Your task to perform on an android device: check data usage Image 0: 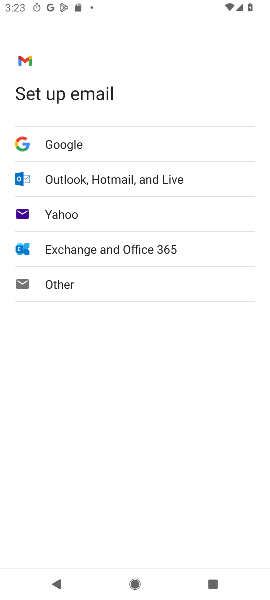
Step 0: press home button
Your task to perform on an android device: check data usage Image 1: 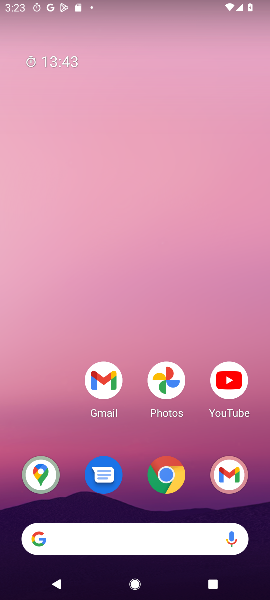
Step 1: drag from (58, 429) to (62, 196)
Your task to perform on an android device: check data usage Image 2: 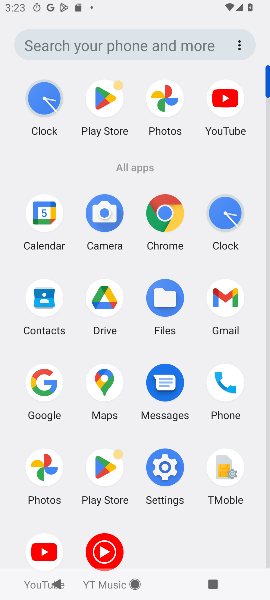
Step 2: click (169, 470)
Your task to perform on an android device: check data usage Image 3: 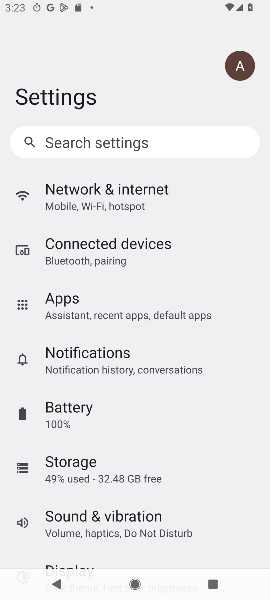
Step 3: drag from (221, 452) to (218, 323)
Your task to perform on an android device: check data usage Image 4: 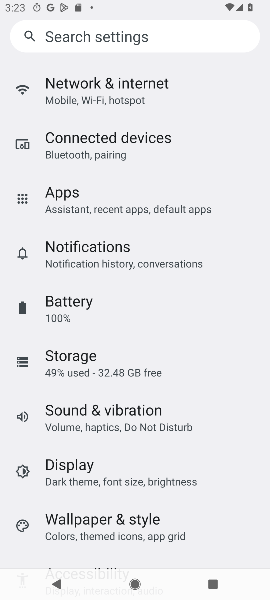
Step 4: drag from (225, 459) to (218, 325)
Your task to perform on an android device: check data usage Image 5: 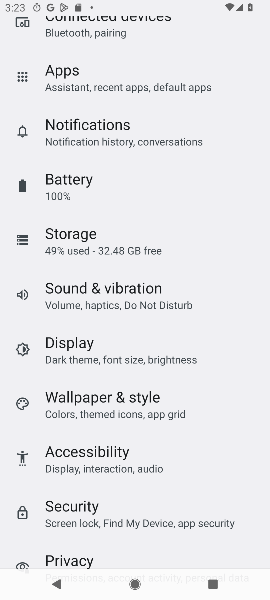
Step 5: drag from (205, 473) to (205, 371)
Your task to perform on an android device: check data usage Image 6: 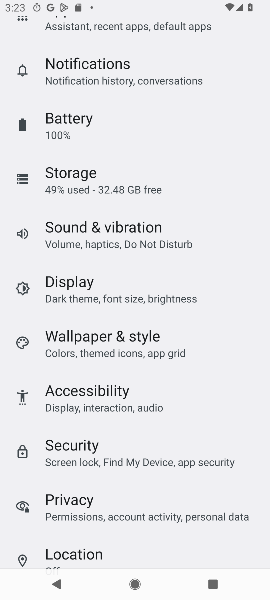
Step 6: drag from (217, 494) to (214, 392)
Your task to perform on an android device: check data usage Image 7: 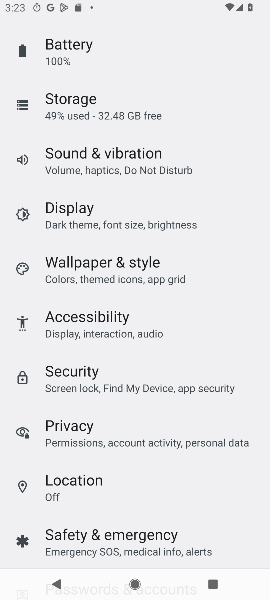
Step 7: drag from (218, 483) to (217, 389)
Your task to perform on an android device: check data usage Image 8: 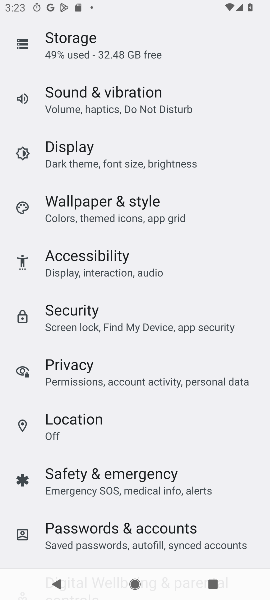
Step 8: drag from (223, 473) to (224, 347)
Your task to perform on an android device: check data usage Image 9: 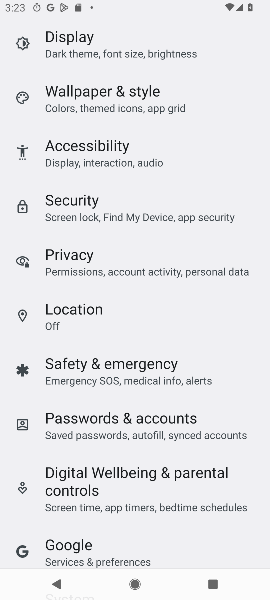
Step 9: drag from (204, 509) to (206, 395)
Your task to perform on an android device: check data usage Image 10: 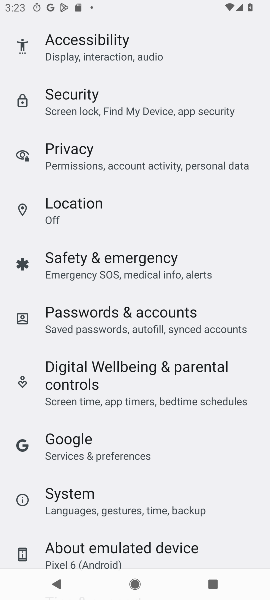
Step 10: drag from (232, 241) to (235, 412)
Your task to perform on an android device: check data usage Image 11: 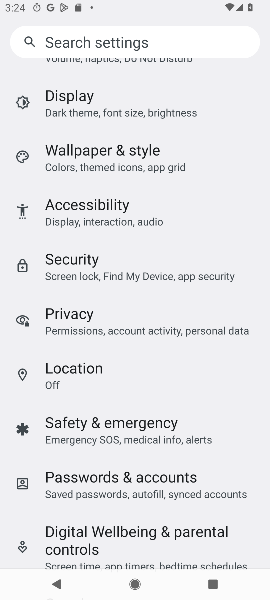
Step 11: drag from (195, 167) to (217, 367)
Your task to perform on an android device: check data usage Image 12: 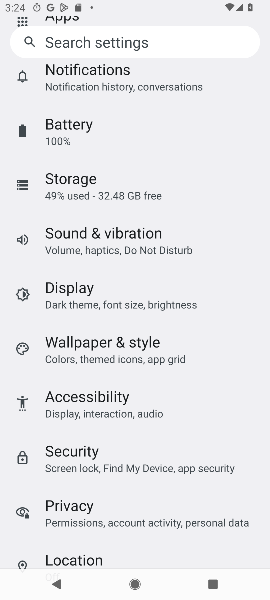
Step 12: drag from (219, 206) to (222, 417)
Your task to perform on an android device: check data usage Image 13: 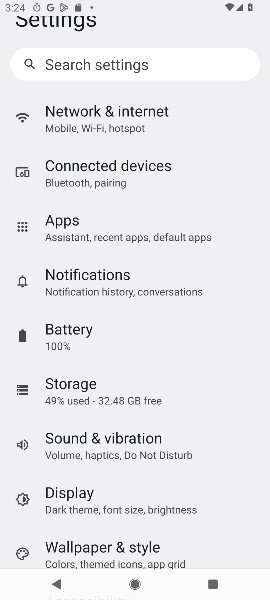
Step 13: click (163, 119)
Your task to perform on an android device: check data usage Image 14: 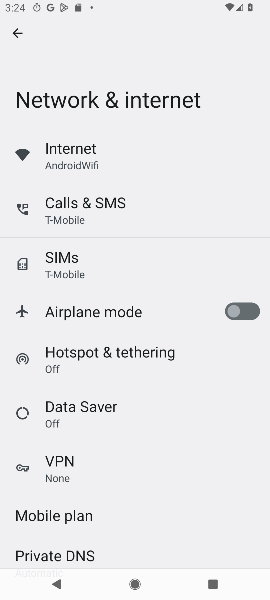
Step 14: drag from (172, 152) to (180, 284)
Your task to perform on an android device: check data usage Image 15: 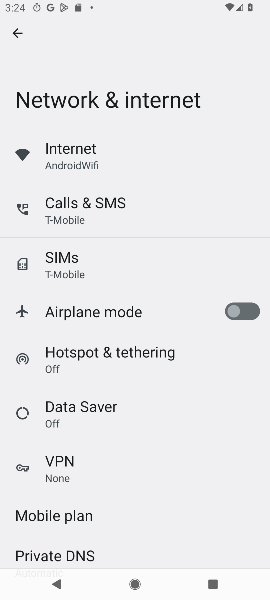
Step 15: drag from (138, 435) to (146, 303)
Your task to perform on an android device: check data usage Image 16: 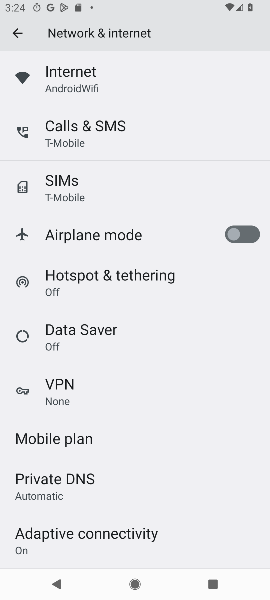
Step 16: drag from (154, 121) to (150, 329)
Your task to perform on an android device: check data usage Image 17: 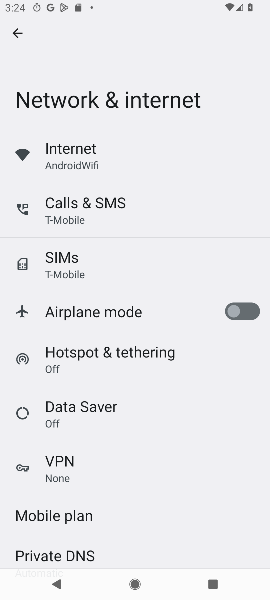
Step 17: click (112, 153)
Your task to perform on an android device: check data usage Image 18: 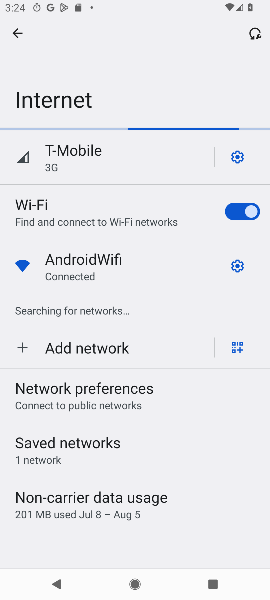
Step 18: drag from (104, 502) to (104, 346)
Your task to perform on an android device: check data usage Image 19: 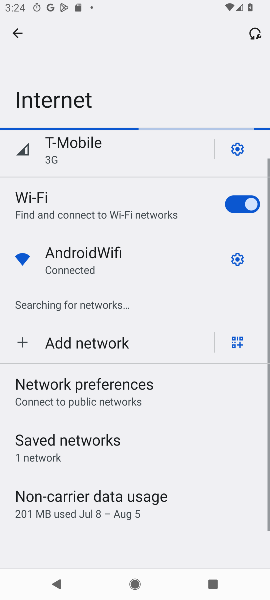
Step 19: click (119, 496)
Your task to perform on an android device: check data usage Image 20: 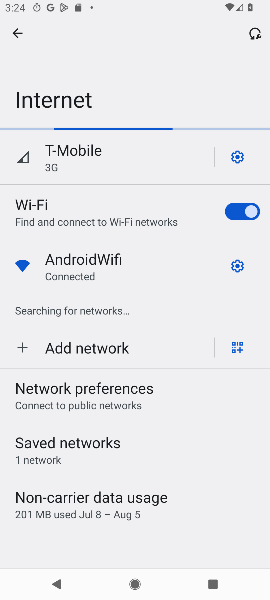
Step 20: task complete